Your task to perform on an android device: turn off notifications in google photos Image 0: 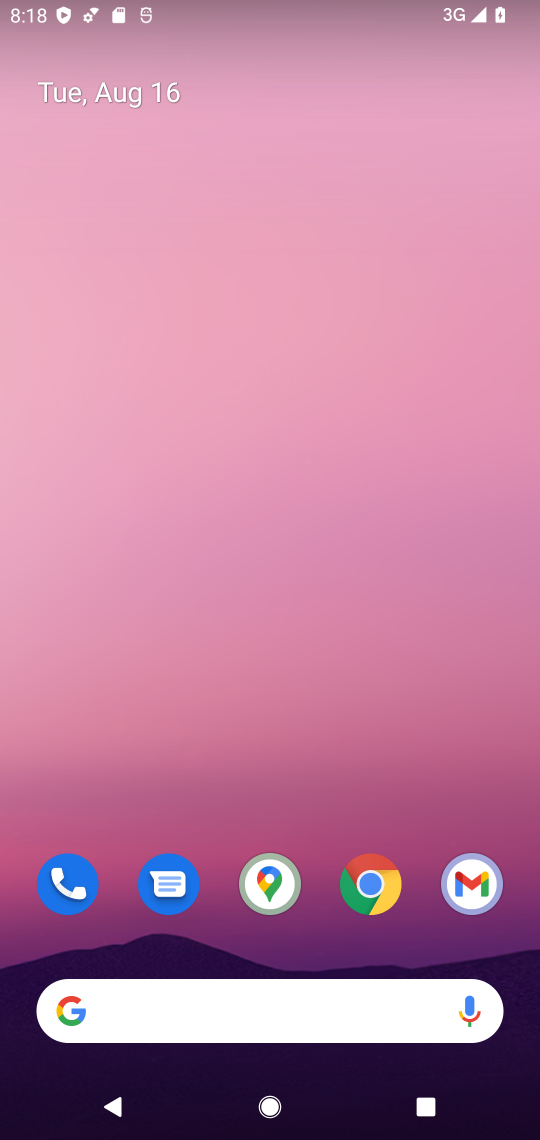
Step 0: drag from (453, 948) to (384, 352)
Your task to perform on an android device: turn off notifications in google photos Image 1: 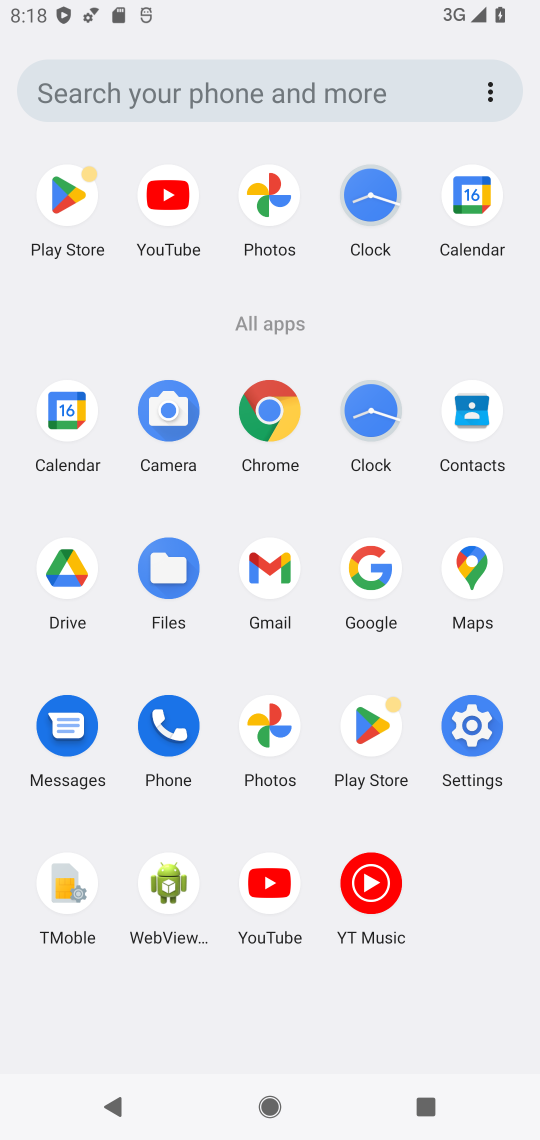
Step 1: click (268, 721)
Your task to perform on an android device: turn off notifications in google photos Image 2: 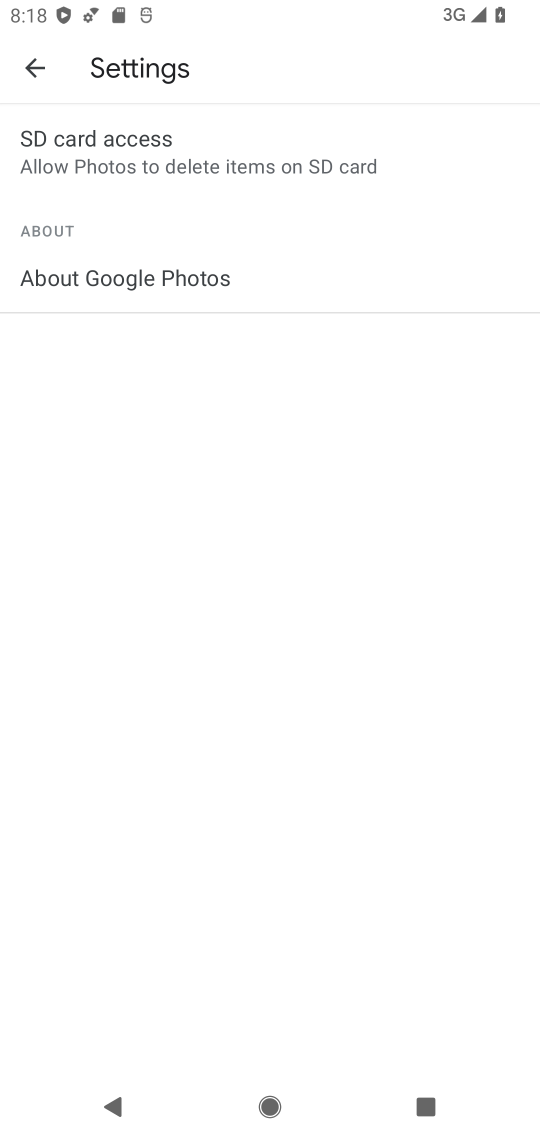
Step 2: press back button
Your task to perform on an android device: turn off notifications in google photos Image 3: 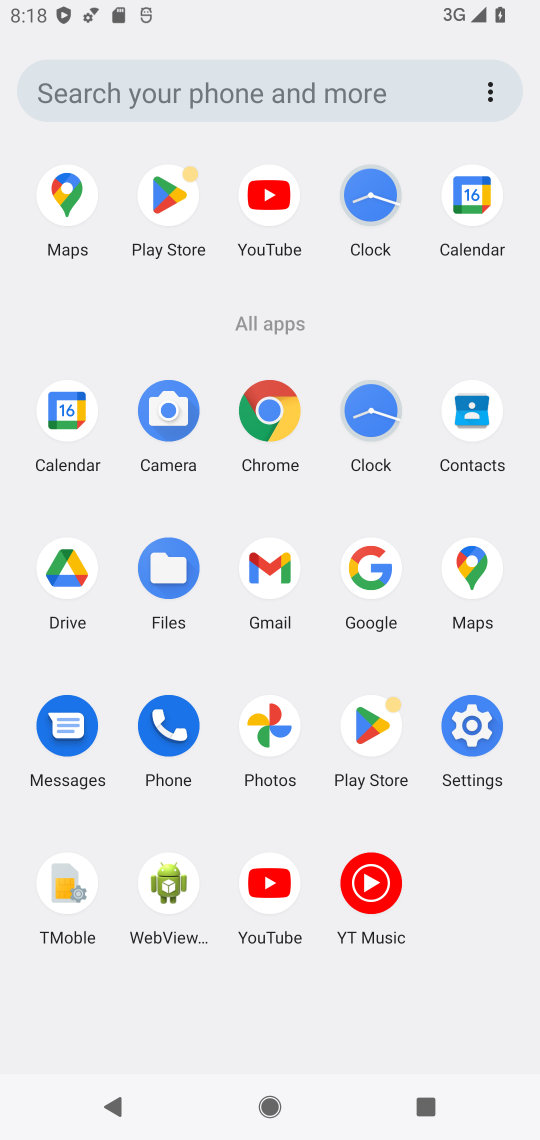
Step 3: click (272, 719)
Your task to perform on an android device: turn off notifications in google photos Image 4: 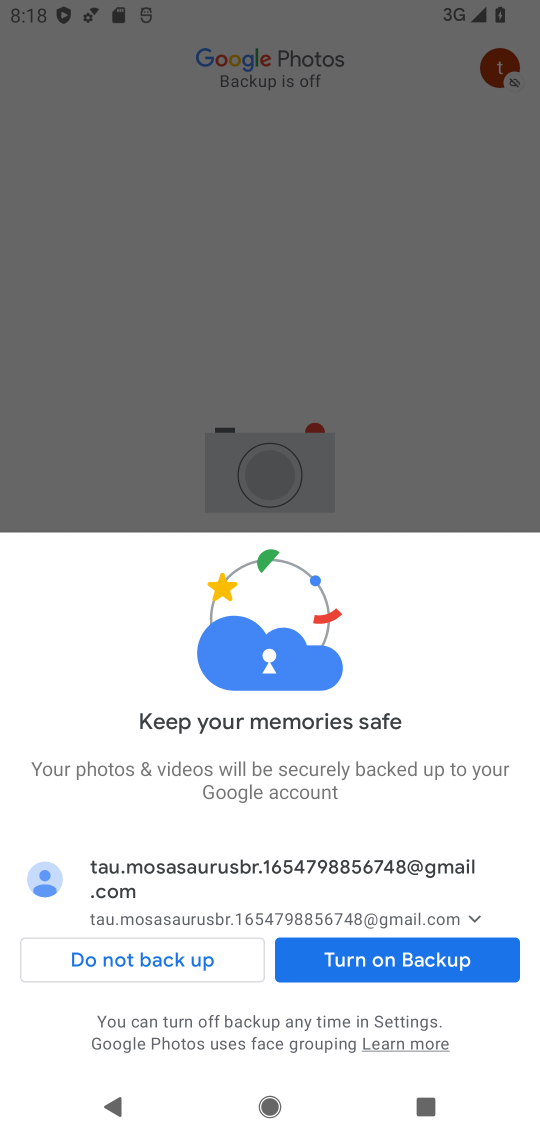
Step 4: click (376, 955)
Your task to perform on an android device: turn off notifications in google photos Image 5: 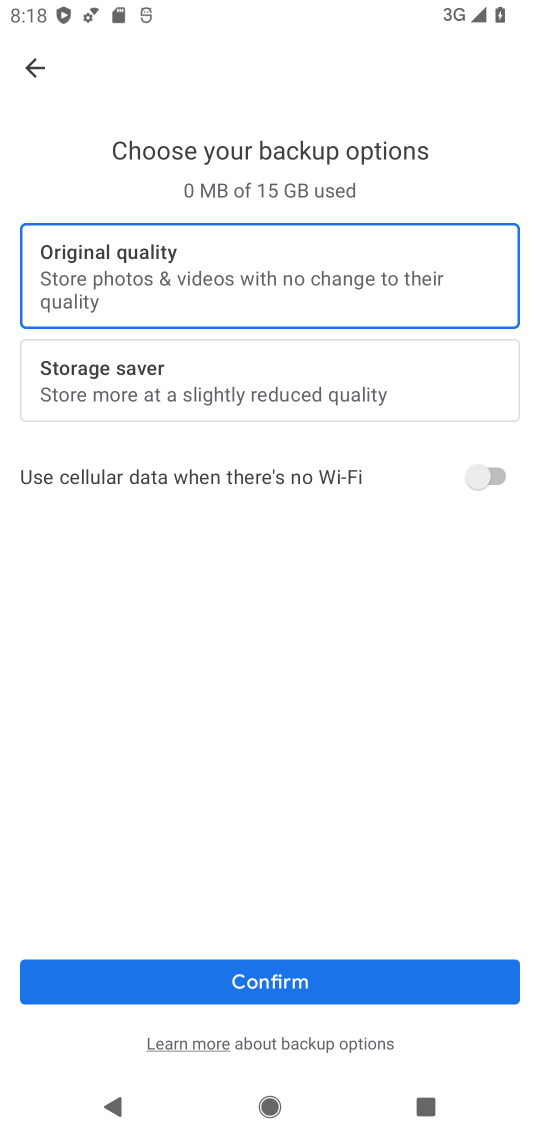
Step 5: click (261, 989)
Your task to perform on an android device: turn off notifications in google photos Image 6: 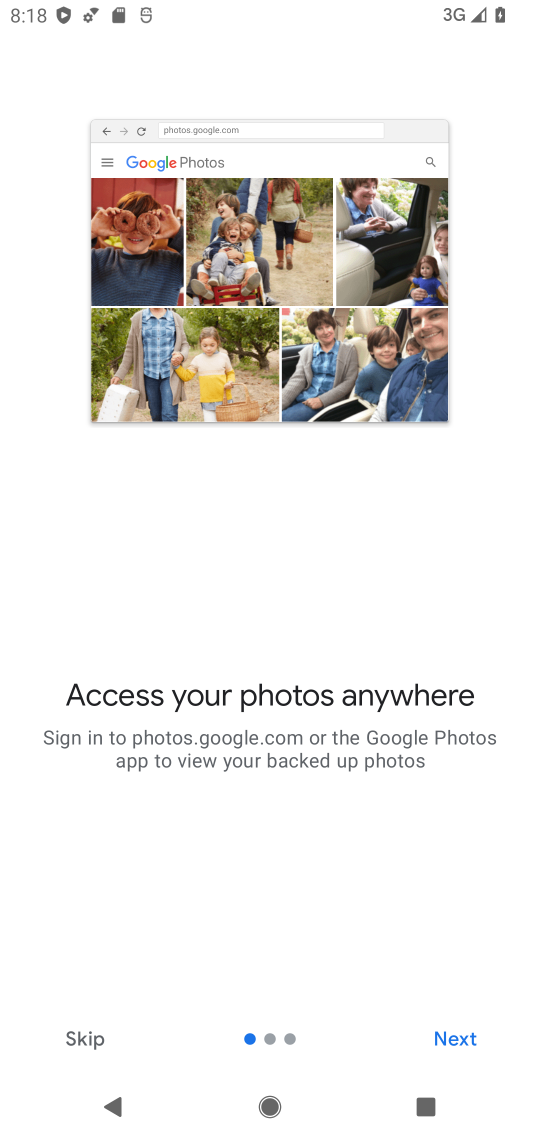
Step 6: click (98, 1040)
Your task to perform on an android device: turn off notifications in google photos Image 7: 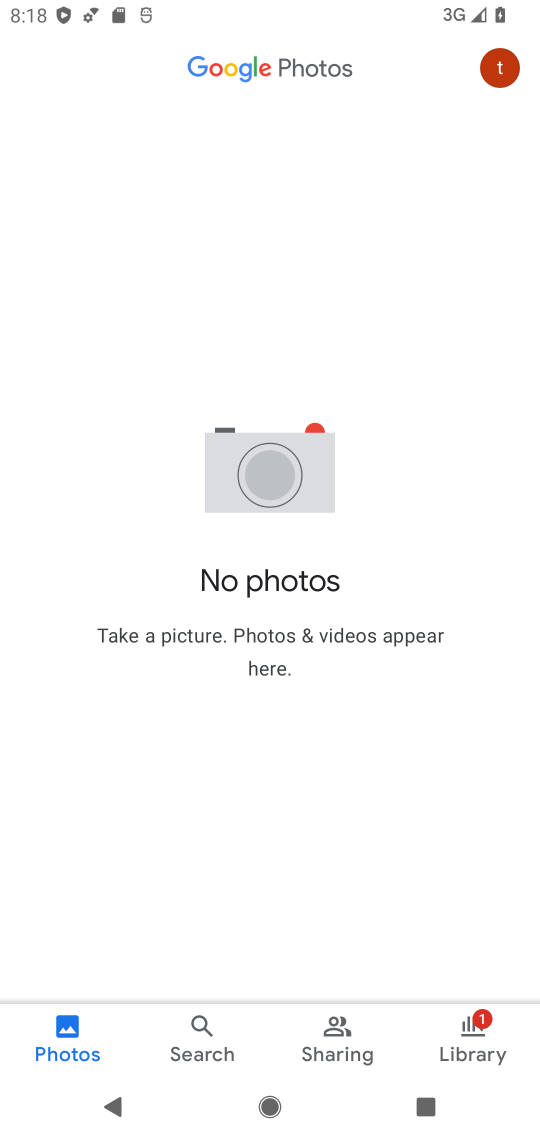
Step 7: click (502, 77)
Your task to perform on an android device: turn off notifications in google photos Image 8: 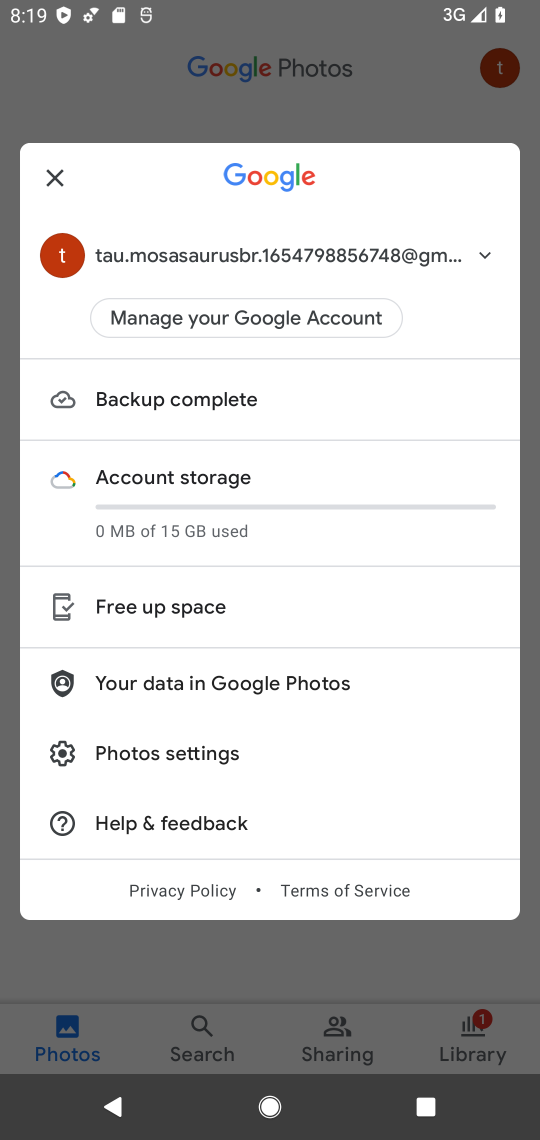
Step 8: click (144, 753)
Your task to perform on an android device: turn off notifications in google photos Image 9: 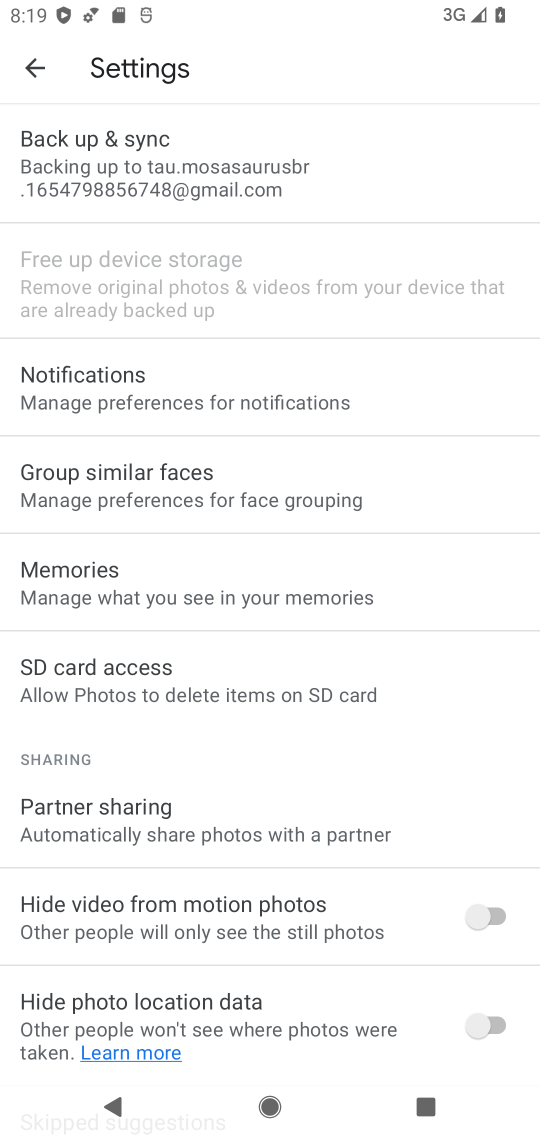
Step 9: click (132, 404)
Your task to perform on an android device: turn off notifications in google photos Image 10: 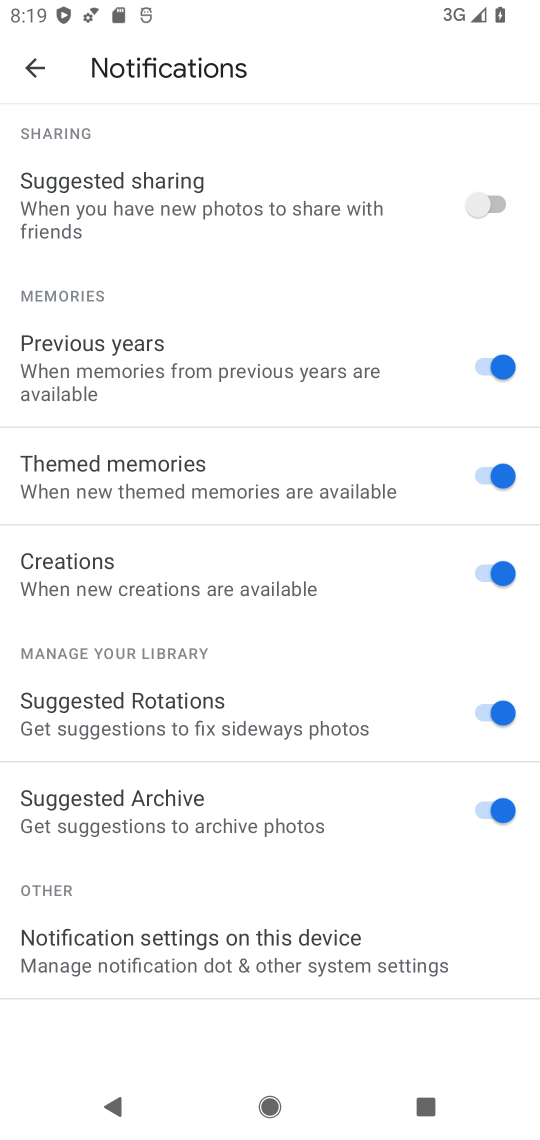
Step 10: drag from (346, 873) to (338, 449)
Your task to perform on an android device: turn off notifications in google photos Image 11: 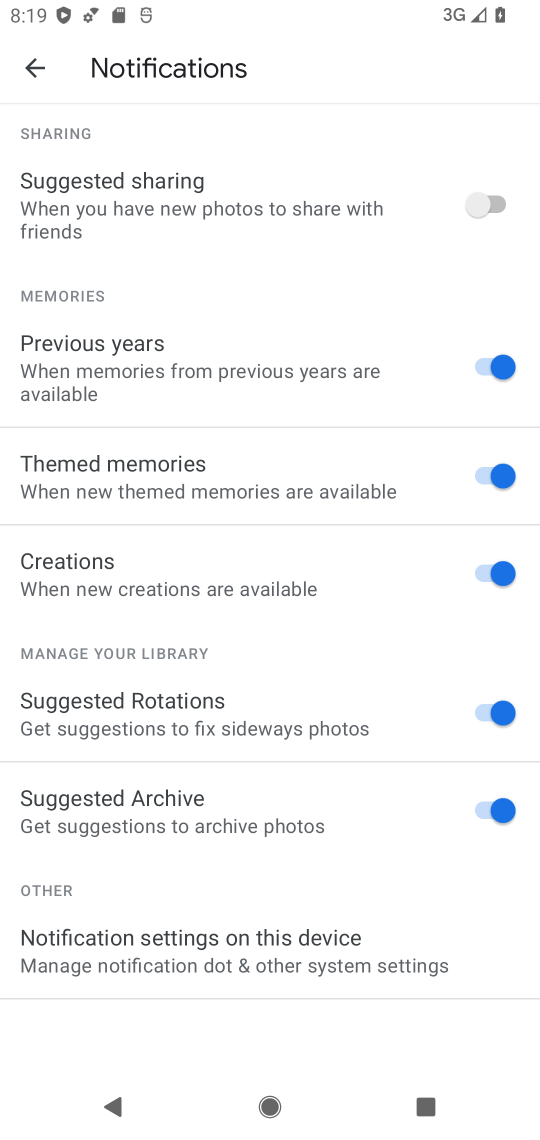
Step 11: drag from (348, 903) to (365, 305)
Your task to perform on an android device: turn off notifications in google photos Image 12: 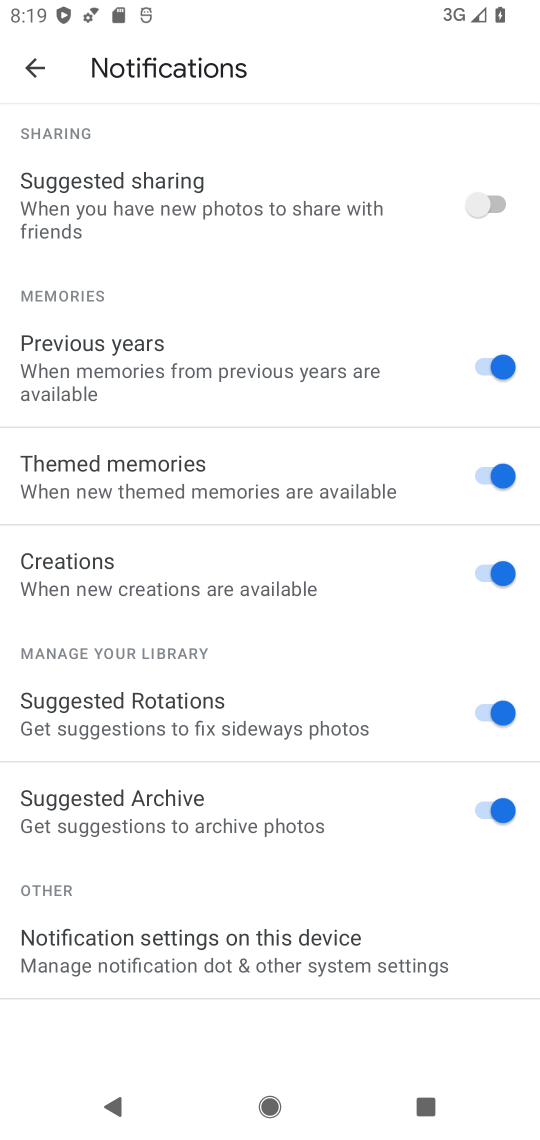
Step 12: click (184, 939)
Your task to perform on an android device: turn off notifications in google photos Image 13: 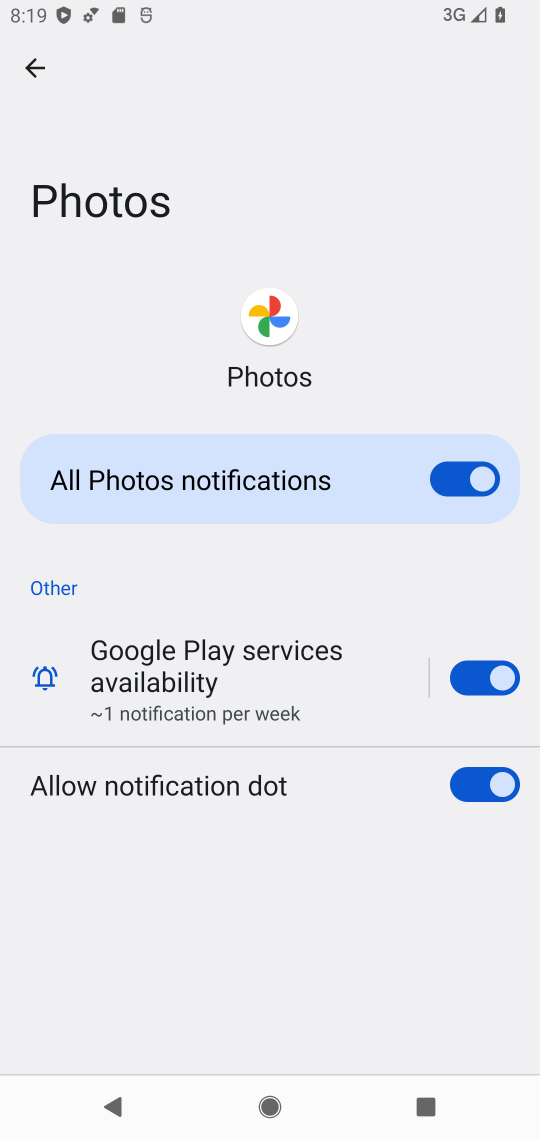
Step 13: click (442, 481)
Your task to perform on an android device: turn off notifications in google photos Image 14: 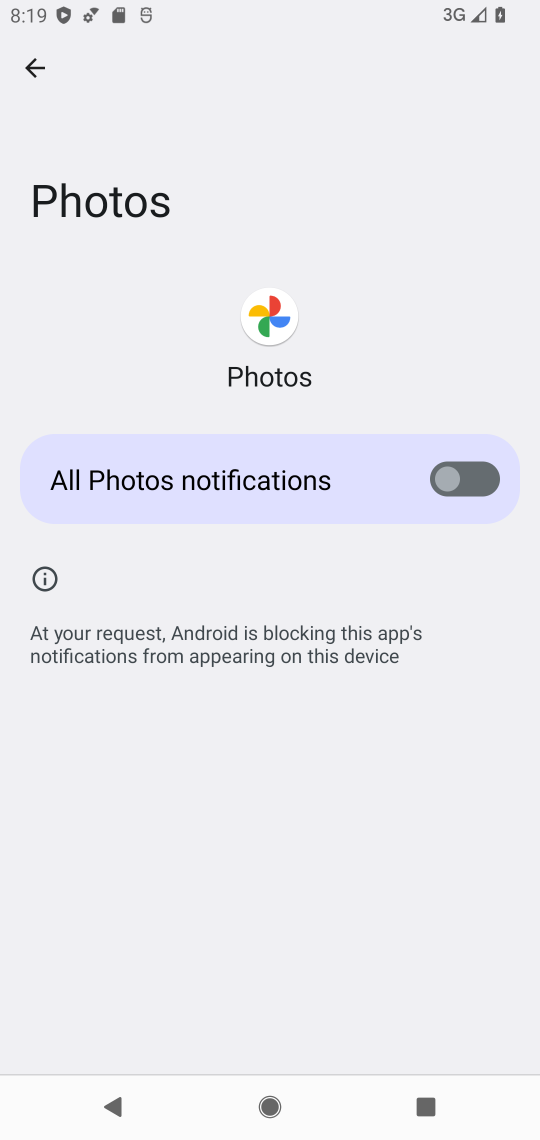
Step 14: task complete